Your task to perform on an android device: turn off notifications settings in the gmail app Image 0: 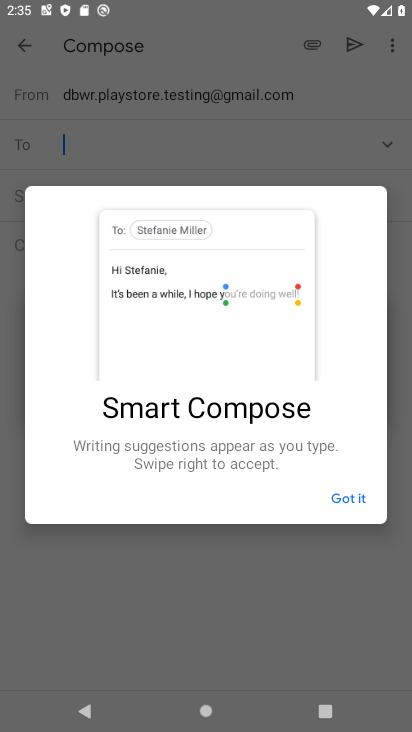
Step 0: press home button
Your task to perform on an android device: turn off notifications settings in the gmail app Image 1: 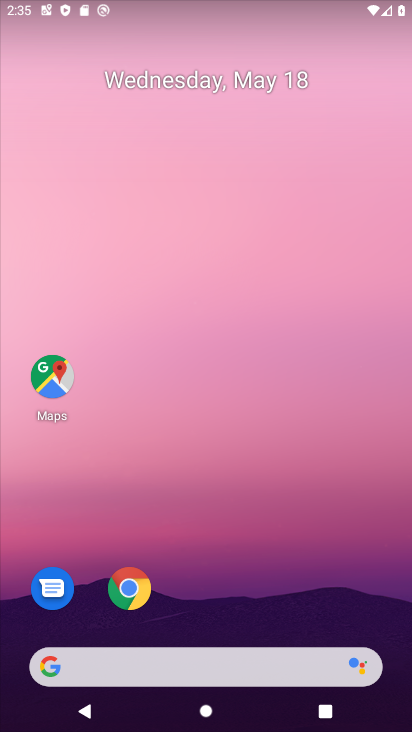
Step 1: drag from (358, 604) to (346, 114)
Your task to perform on an android device: turn off notifications settings in the gmail app Image 2: 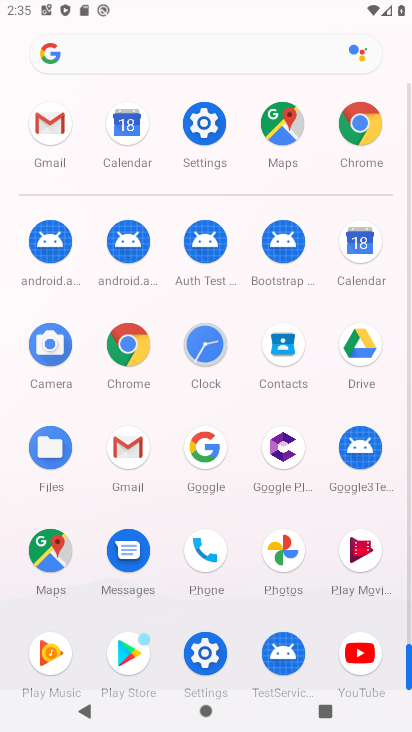
Step 2: click (127, 452)
Your task to perform on an android device: turn off notifications settings in the gmail app Image 3: 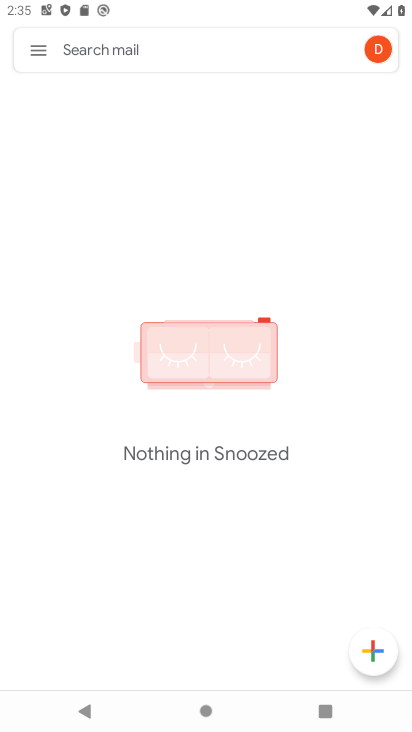
Step 3: click (33, 57)
Your task to perform on an android device: turn off notifications settings in the gmail app Image 4: 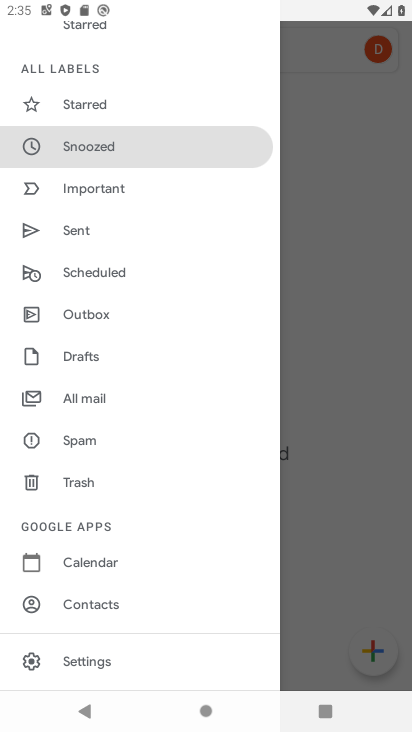
Step 4: drag from (175, 543) to (203, 391)
Your task to perform on an android device: turn off notifications settings in the gmail app Image 5: 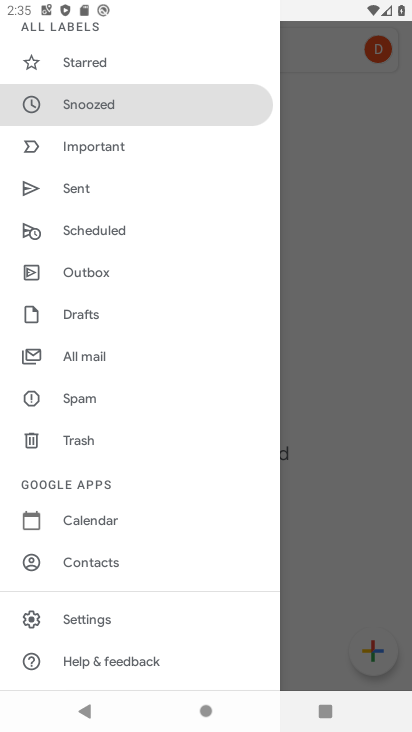
Step 5: drag from (224, 590) to (223, 442)
Your task to perform on an android device: turn off notifications settings in the gmail app Image 6: 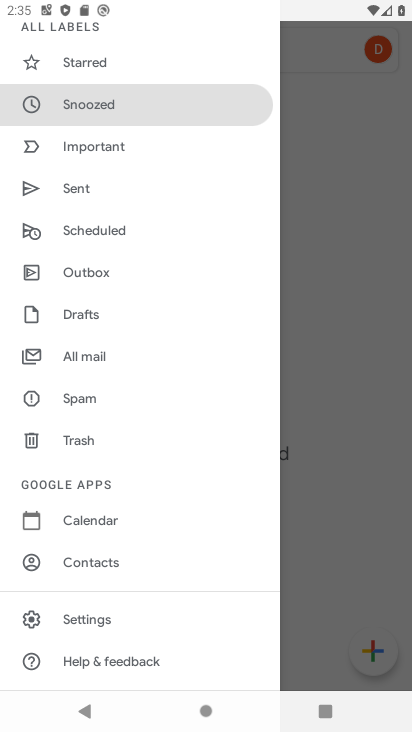
Step 6: click (107, 624)
Your task to perform on an android device: turn off notifications settings in the gmail app Image 7: 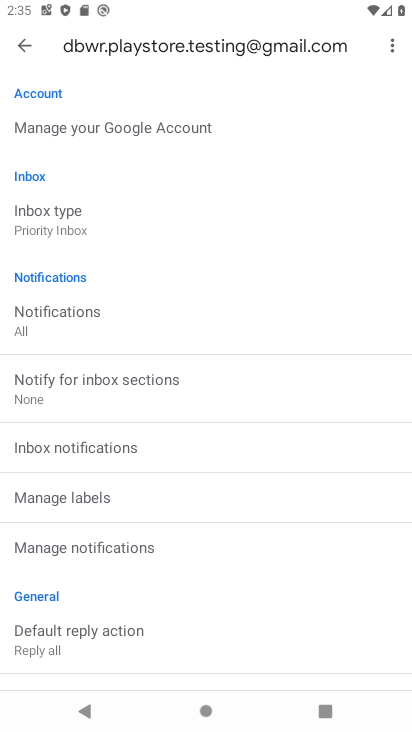
Step 7: drag from (212, 578) to (222, 489)
Your task to perform on an android device: turn off notifications settings in the gmail app Image 8: 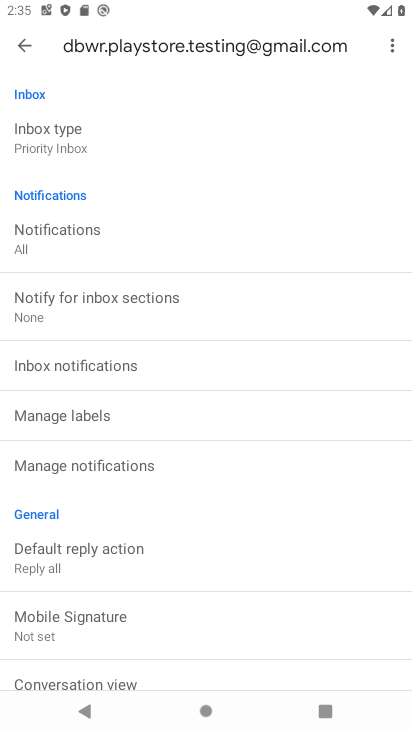
Step 8: drag from (241, 626) to (251, 519)
Your task to perform on an android device: turn off notifications settings in the gmail app Image 9: 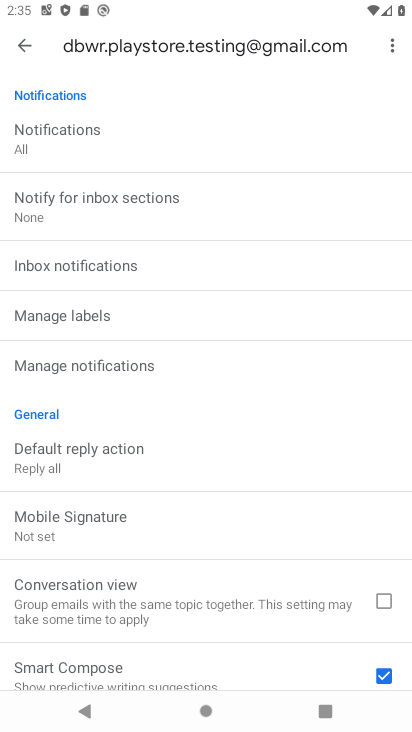
Step 9: drag from (247, 641) to (260, 525)
Your task to perform on an android device: turn off notifications settings in the gmail app Image 10: 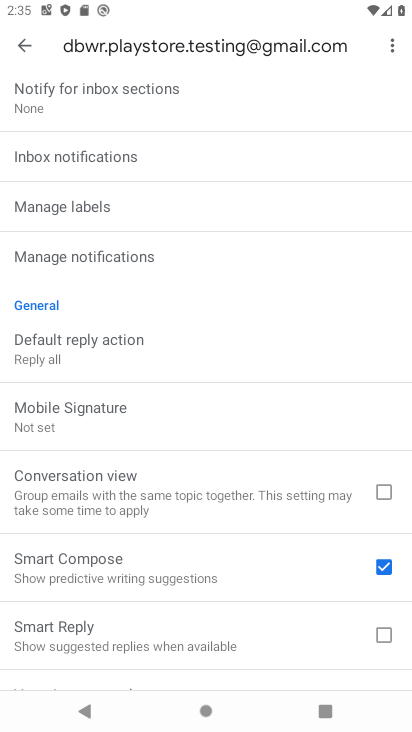
Step 10: drag from (261, 636) to (260, 527)
Your task to perform on an android device: turn off notifications settings in the gmail app Image 11: 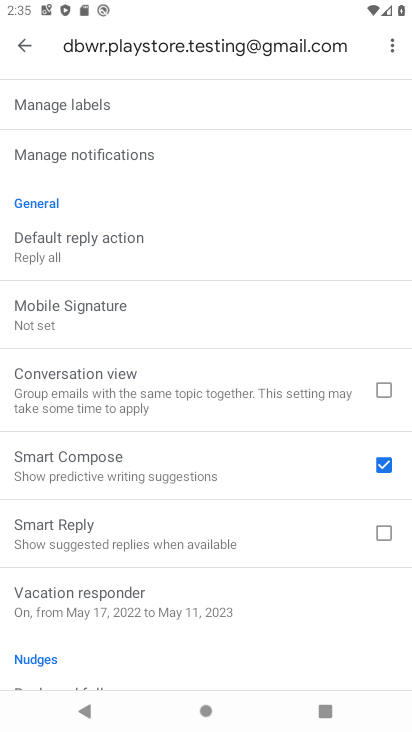
Step 11: drag from (269, 642) to (274, 542)
Your task to perform on an android device: turn off notifications settings in the gmail app Image 12: 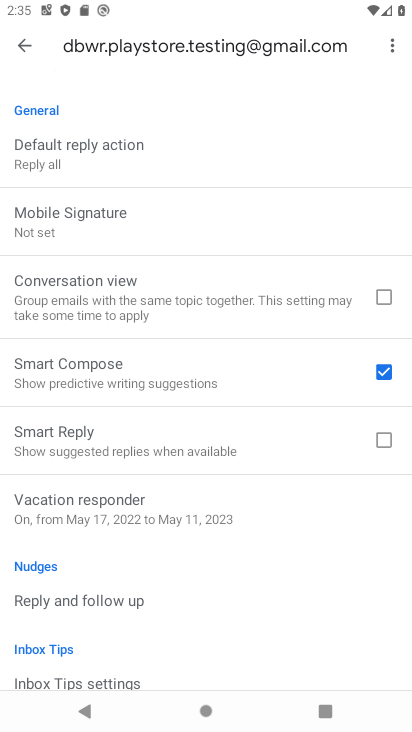
Step 12: drag from (273, 617) to (272, 484)
Your task to perform on an android device: turn off notifications settings in the gmail app Image 13: 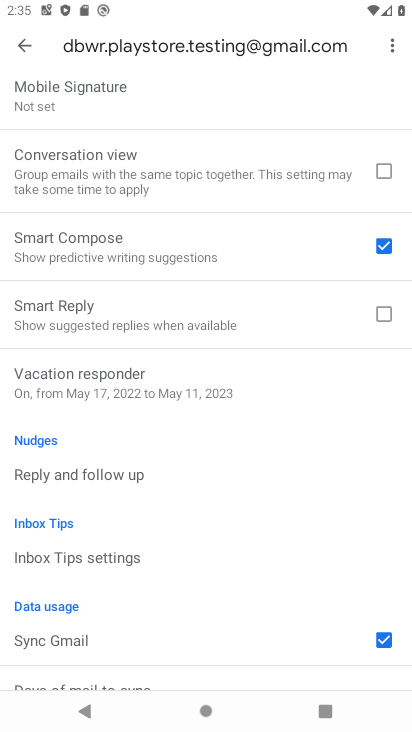
Step 13: drag from (294, 273) to (283, 383)
Your task to perform on an android device: turn off notifications settings in the gmail app Image 14: 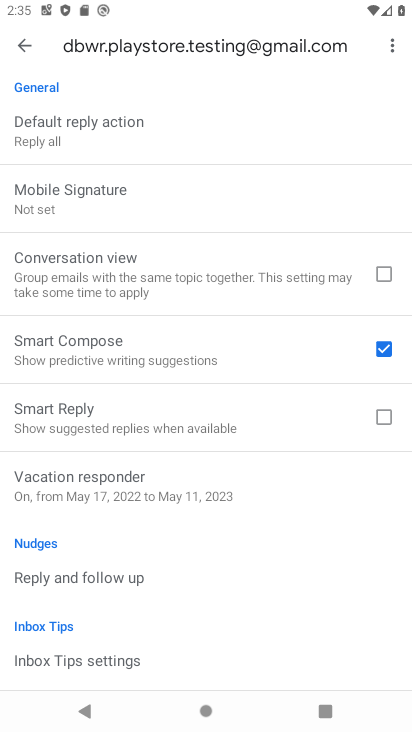
Step 14: drag from (283, 213) to (280, 389)
Your task to perform on an android device: turn off notifications settings in the gmail app Image 15: 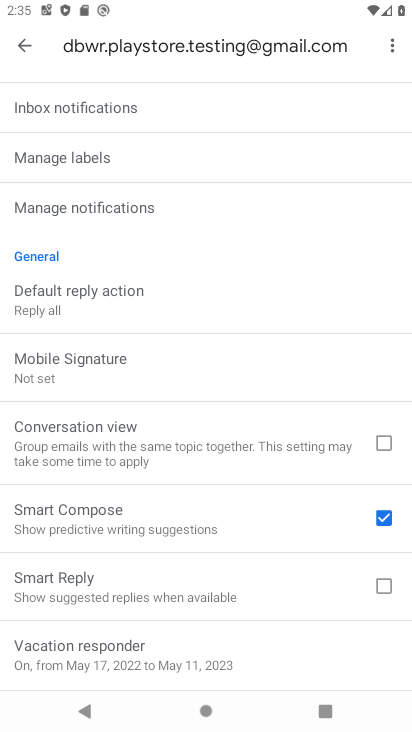
Step 15: drag from (280, 231) to (270, 377)
Your task to perform on an android device: turn off notifications settings in the gmail app Image 16: 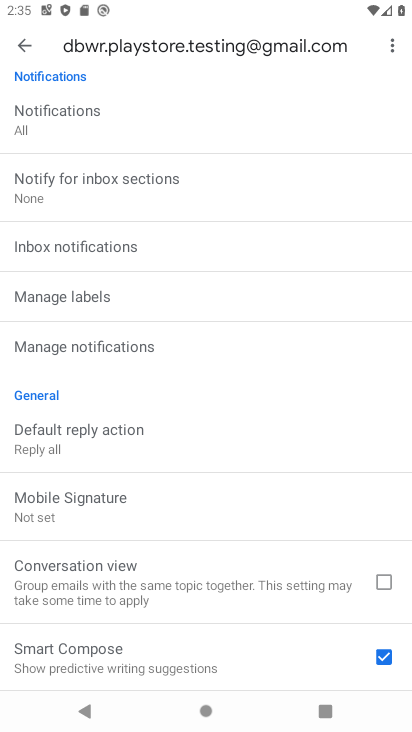
Step 16: drag from (271, 192) to (274, 316)
Your task to perform on an android device: turn off notifications settings in the gmail app Image 17: 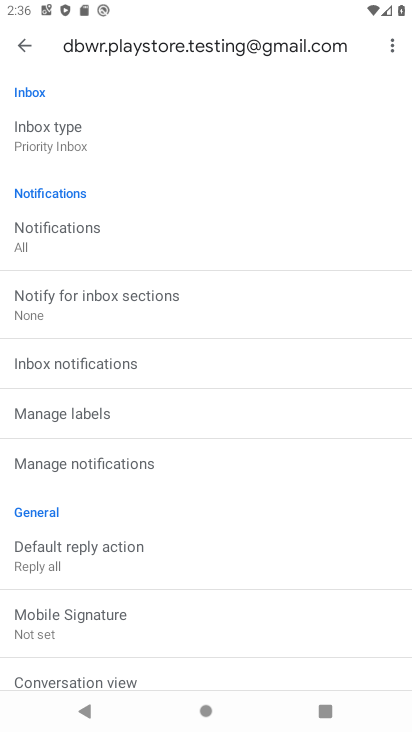
Step 17: drag from (258, 213) to (249, 325)
Your task to perform on an android device: turn off notifications settings in the gmail app Image 18: 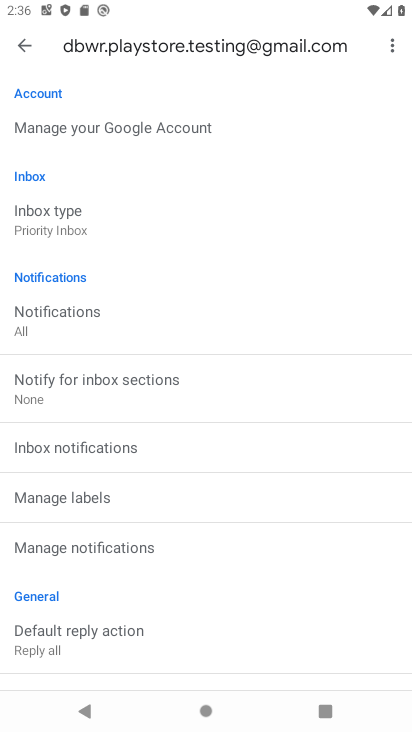
Step 18: click (157, 552)
Your task to perform on an android device: turn off notifications settings in the gmail app Image 19: 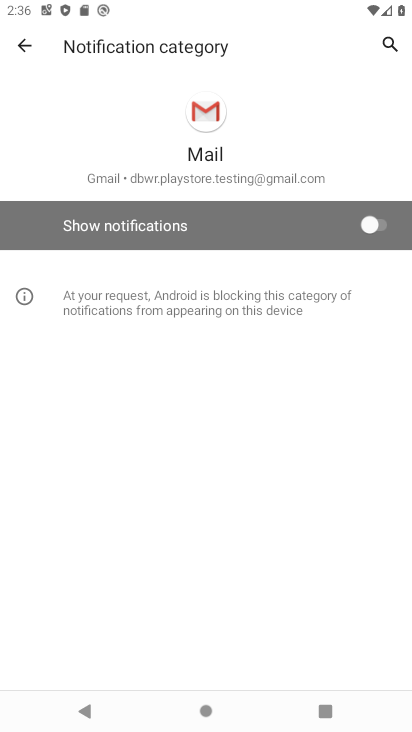
Step 19: task complete